Your task to perform on an android device: When is my next meeting? Image 0: 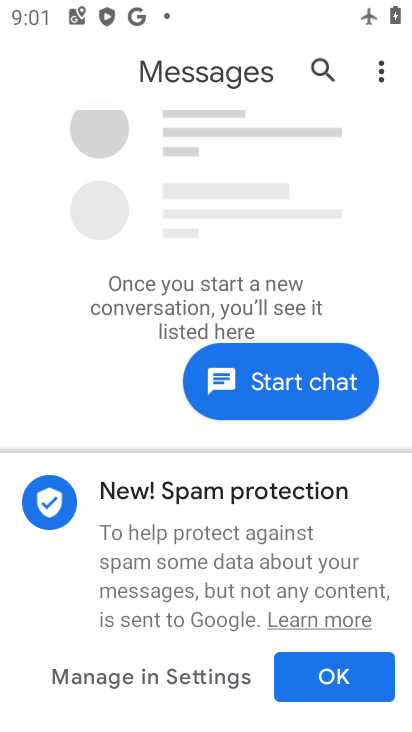
Step 0: press home button
Your task to perform on an android device: When is my next meeting? Image 1: 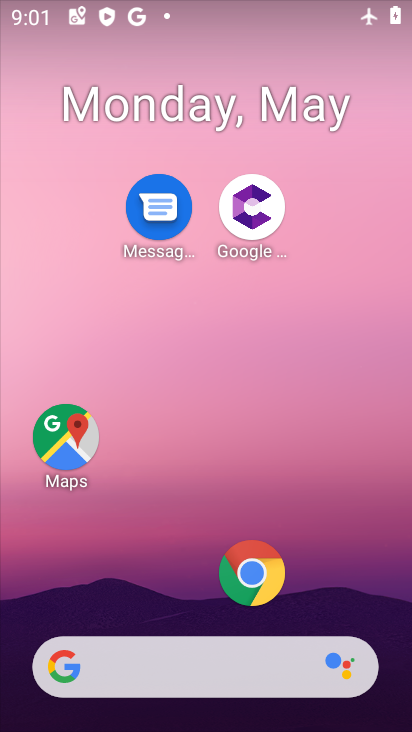
Step 1: drag from (100, 652) to (181, 298)
Your task to perform on an android device: When is my next meeting? Image 2: 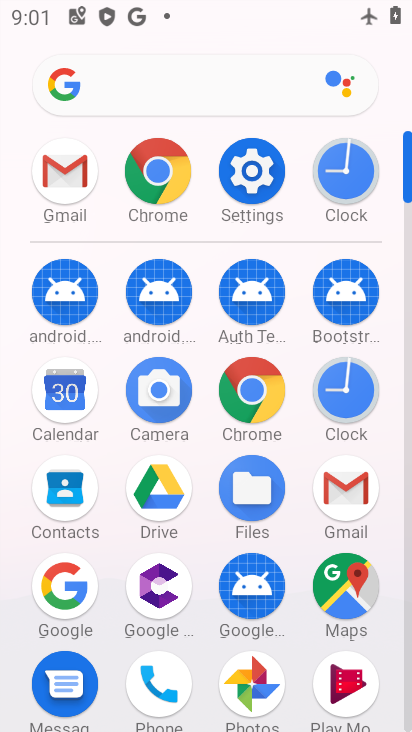
Step 2: click (75, 414)
Your task to perform on an android device: When is my next meeting? Image 3: 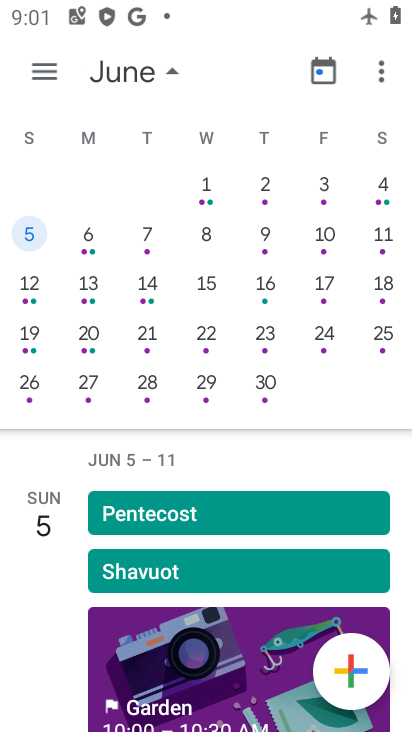
Step 3: click (36, 71)
Your task to perform on an android device: When is my next meeting? Image 4: 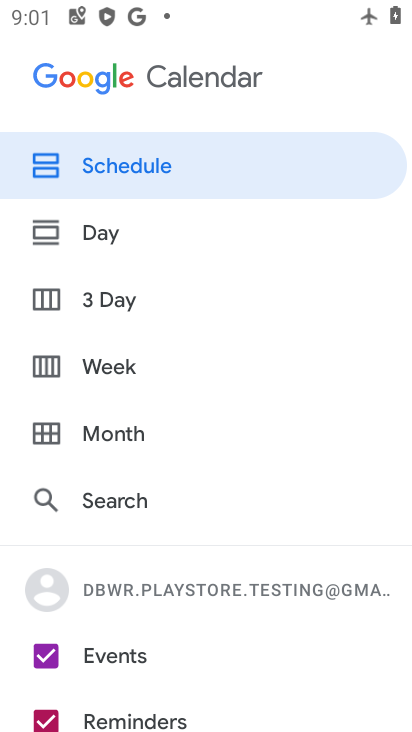
Step 4: press back button
Your task to perform on an android device: When is my next meeting? Image 5: 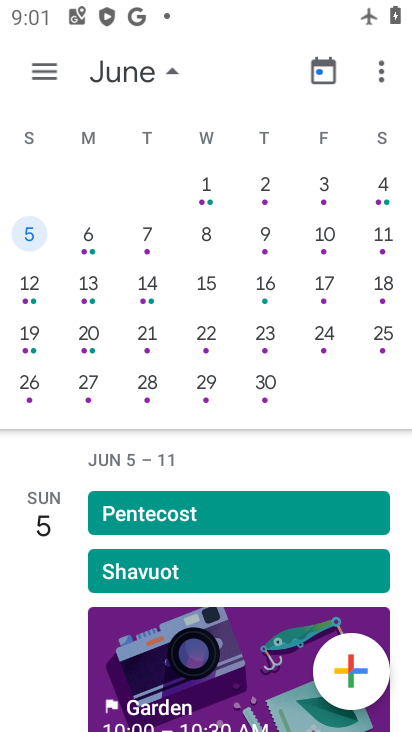
Step 5: drag from (31, 326) to (406, 366)
Your task to perform on an android device: When is my next meeting? Image 6: 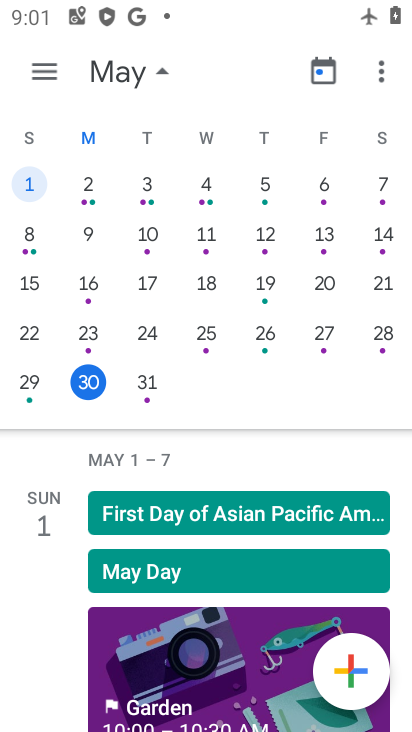
Step 6: click (97, 382)
Your task to perform on an android device: When is my next meeting? Image 7: 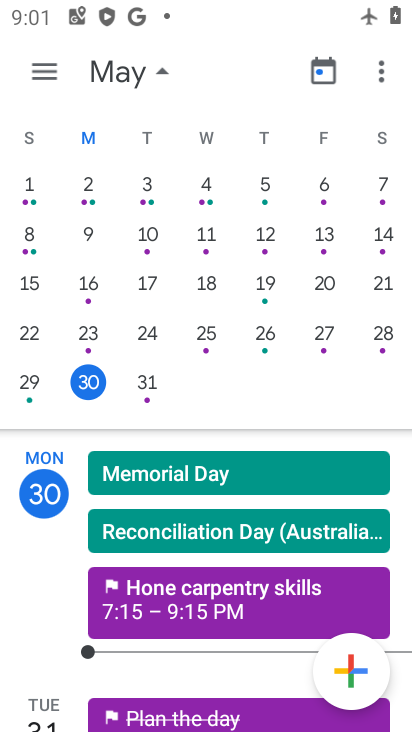
Step 7: click (40, 73)
Your task to perform on an android device: When is my next meeting? Image 8: 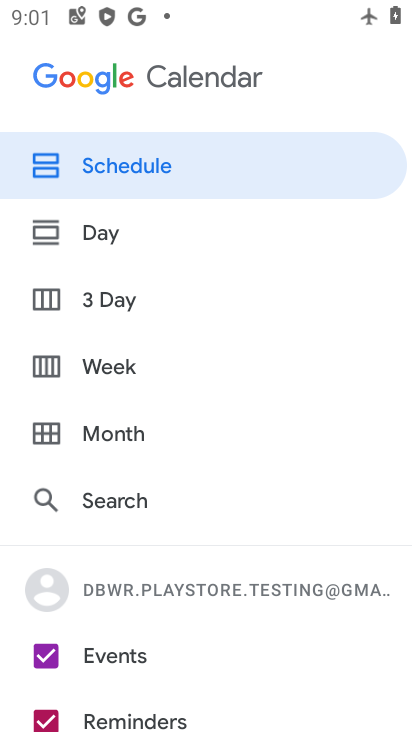
Step 8: drag from (72, 580) to (71, 282)
Your task to perform on an android device: When is my next meeting? Image 9: 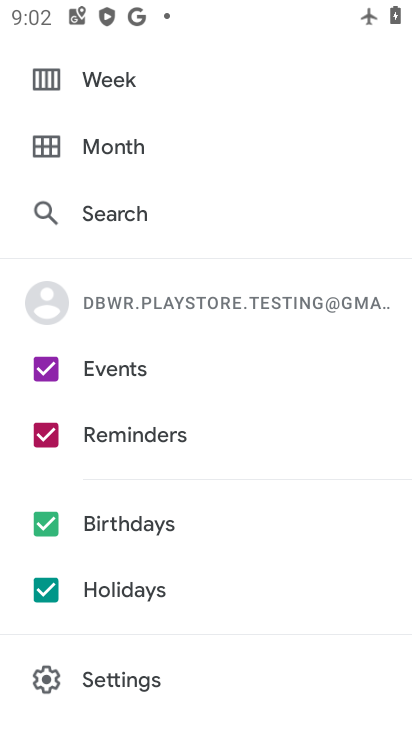
Step 9: click (59, 586)
Your task to perform on an android device: When is my next meeting? Image 10: 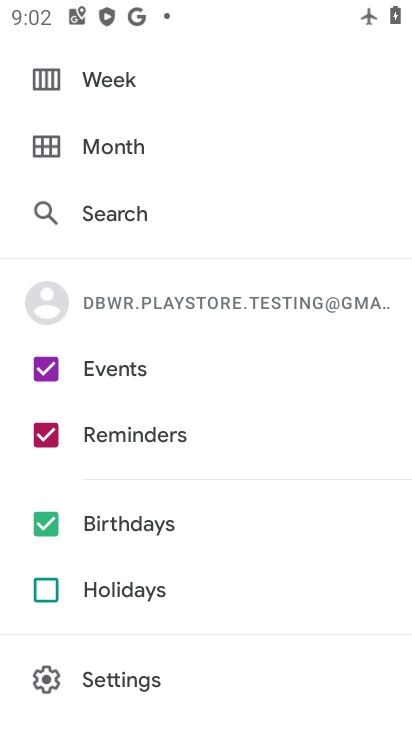
Step 10: click (40, 521)
Your task to perform on an android device: When is my next meeting? Image 11: 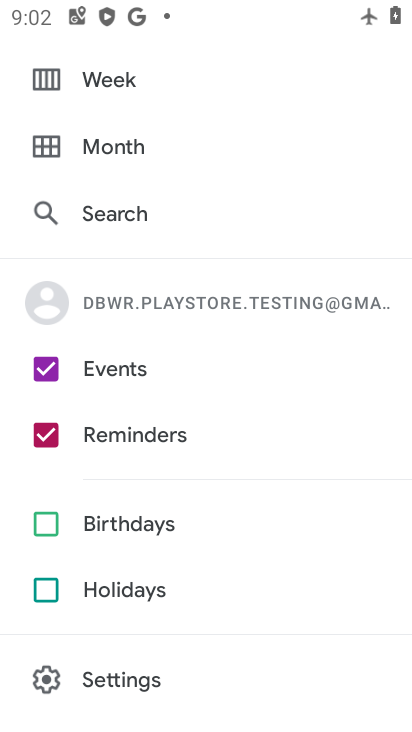
Step 11: task complete